Your task to perform on an android device: toggle translation in the chrome app Image 0: 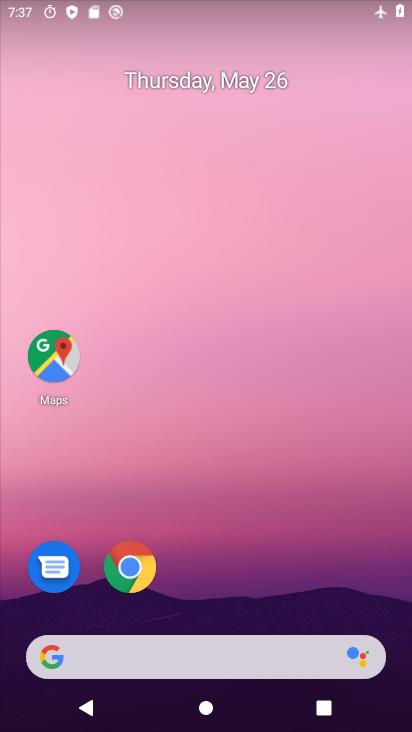
Step 0: click (129, 581)
Your task to perform on an android device: toggle translation in the chrome app Image 1: 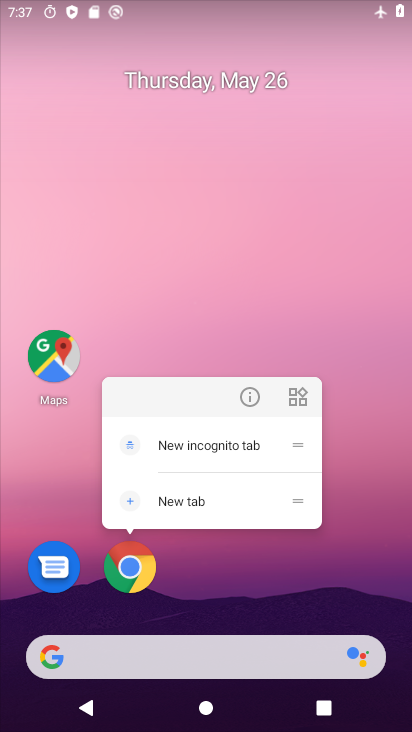
Step 1: click (142, 567)
Your task to perform on an android device: toggle translation in the chrome app Image 2: 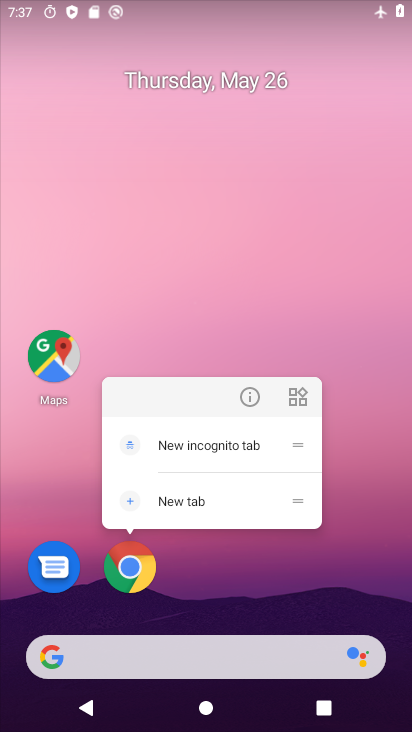
Step 2: click (130, 559)
Your task to perform on an android device: toggle translation in the chrome app Image 3: 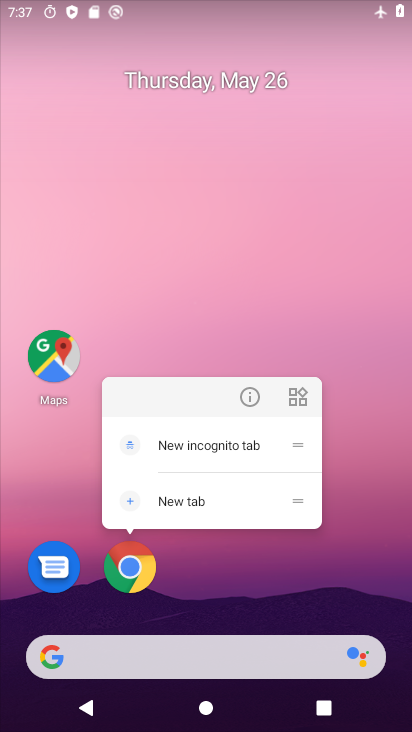
Step 3: click (130, 559)
Your task to perform on an android device: toggle translation in the chrome app Image 4: 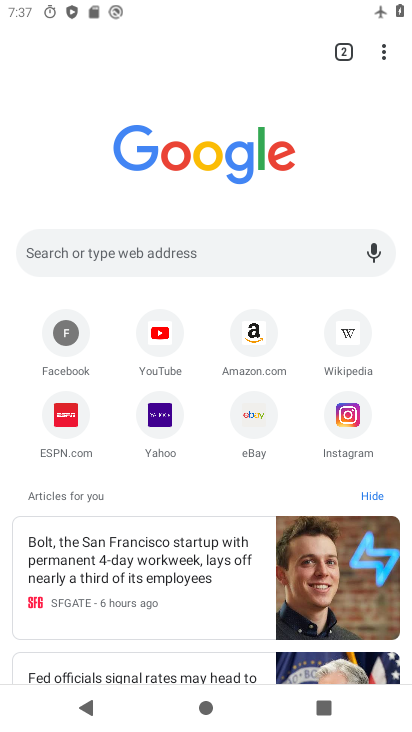
Step 4: drag from (384, 49) to (233, 432)
Your task to perform on an android device: toggle translation in the chrome app Image 5: 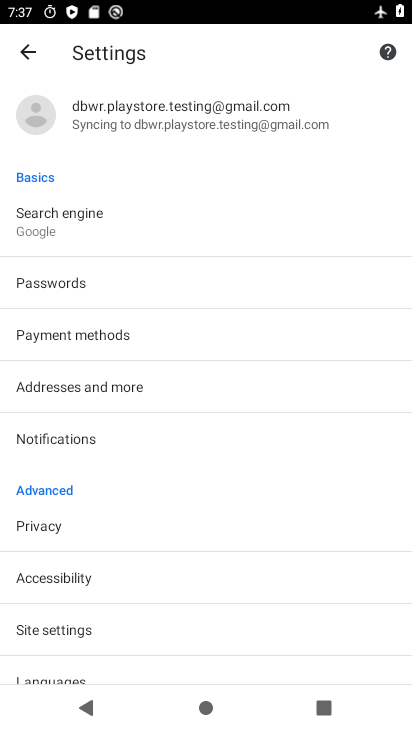
Step 5: drag from (120, 613) to (286, 181)
Your task to perform on an android device: toggle translation in the chrome app Image 6: 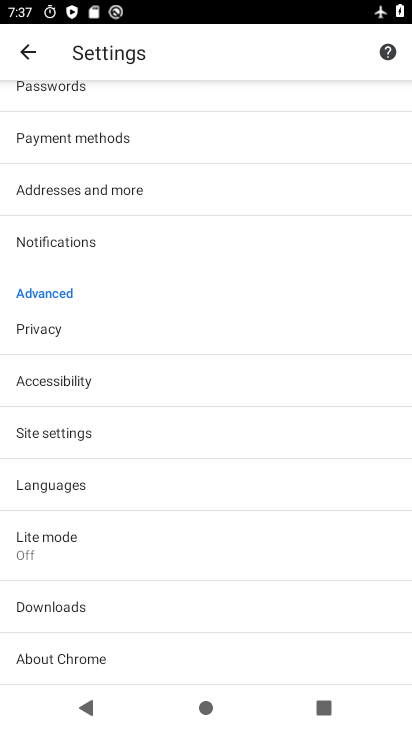
Step 6: click (95, 477)
Your task to perform on an android device: toggle translation in the chrome app Image 7: 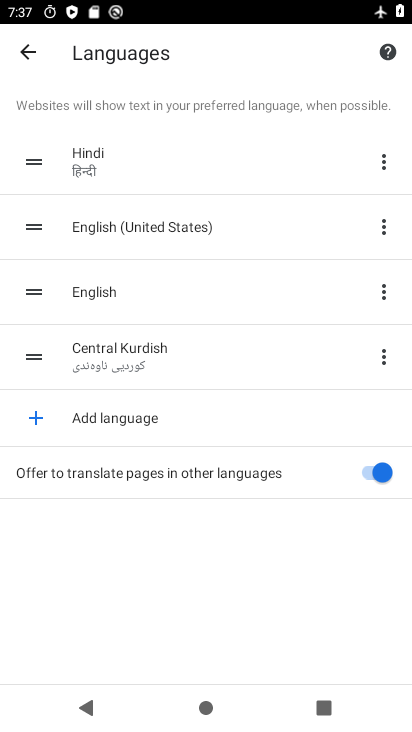
Step 7: click (368, 465)
Your task to perform on an android device: toggle translation in the chrome app Image 8: 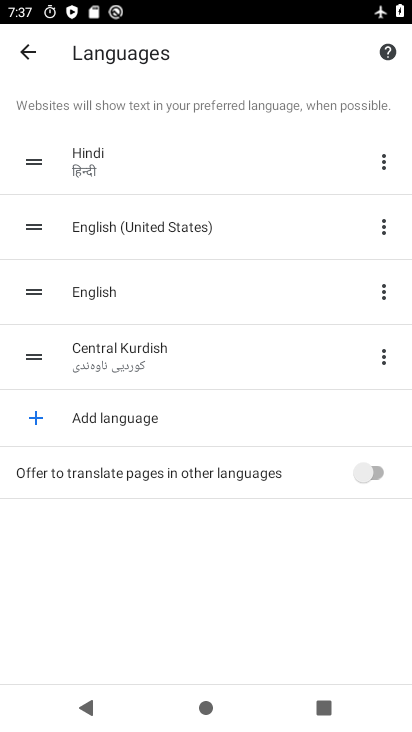
Step 8: task complete